Your task to perform on an android device: See recent photos Image 0: 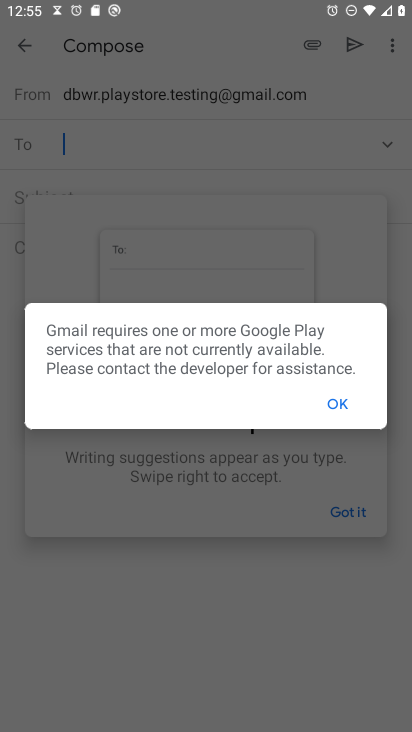
Step 0: press home button
Your task to perform on an android device: See recent photos Image 1: 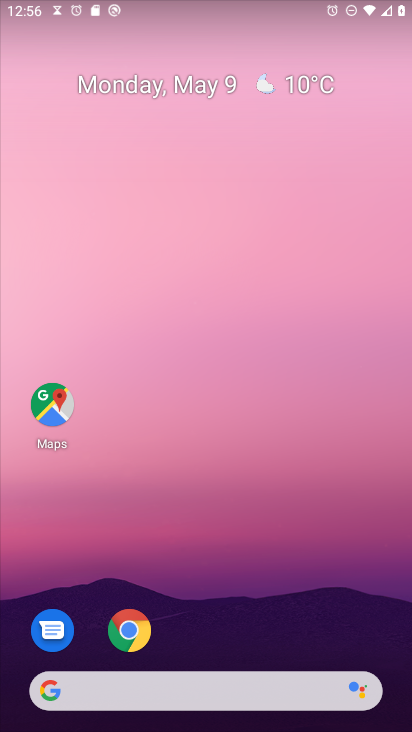
Step 1: drag from (197, 700) to (310, 161)
Your task to perform on an android device: See recent photos Image 2: 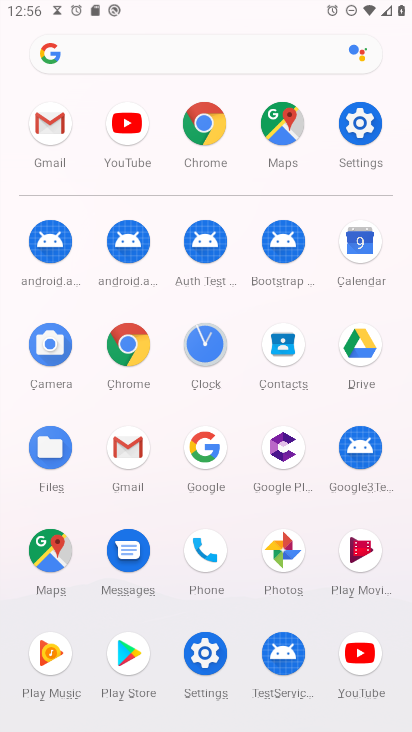
Step 2: click (283, 553)
Your task to perform on an android device: See recent photos Image 3: 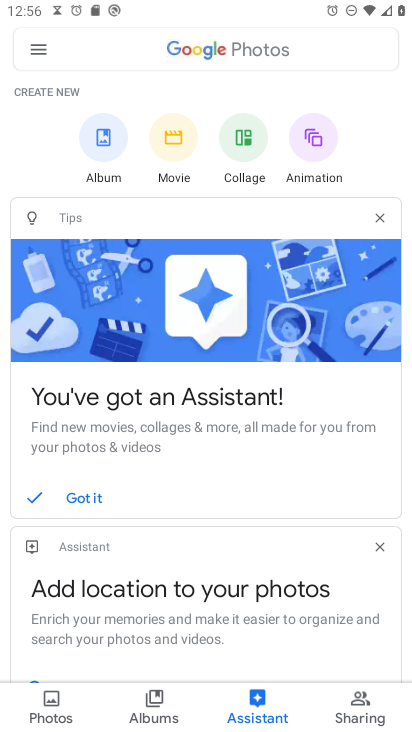
Step 3: click (159, 709)
Your task to perform on an android device: See recent photos Image 4: 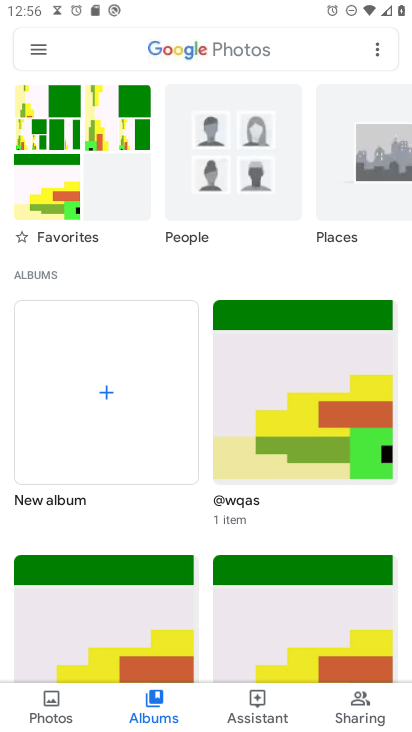
Step 4: task complete